Your task to perform on an android device: Open Chrome and go to settings Image 0: 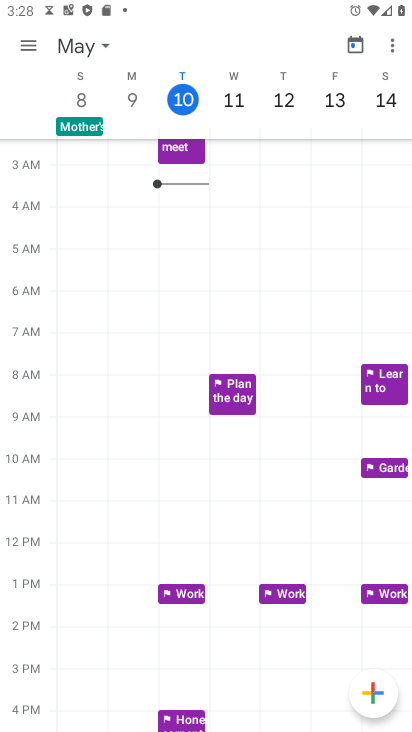
Step 0: press home button
Your task to perform on an android device: Open Chrome and go to settings Image 1: 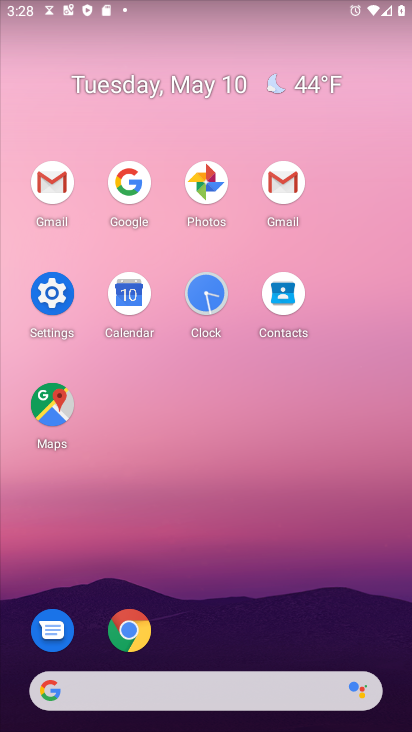
Step 1: click (139, 634)
Your task to perform on an android device: Open Chrome and go to settings Image 2: 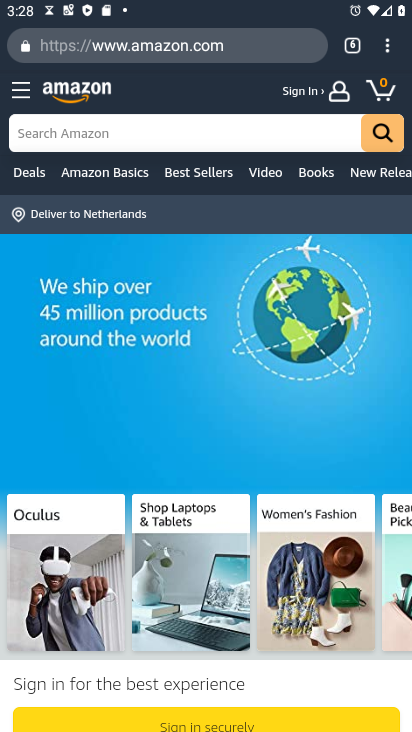
Step 2: click (393, 50)
Your task to perform on an android device: Open Chrome and go to settings Image 3: 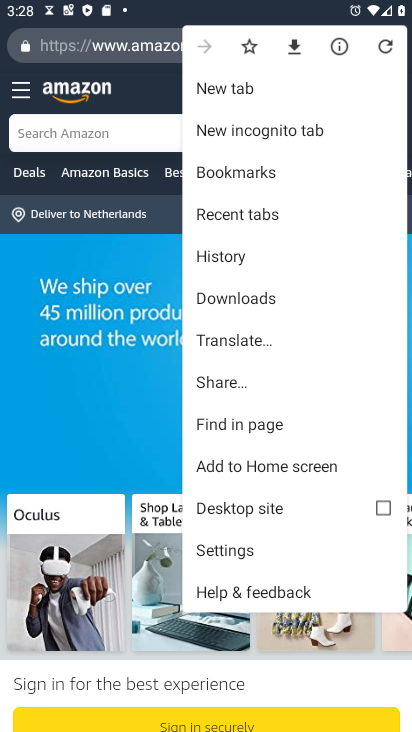
Step 3: click (212, 548)
Your task to perform on an android device: Open Chrome and go to settings Image 4: 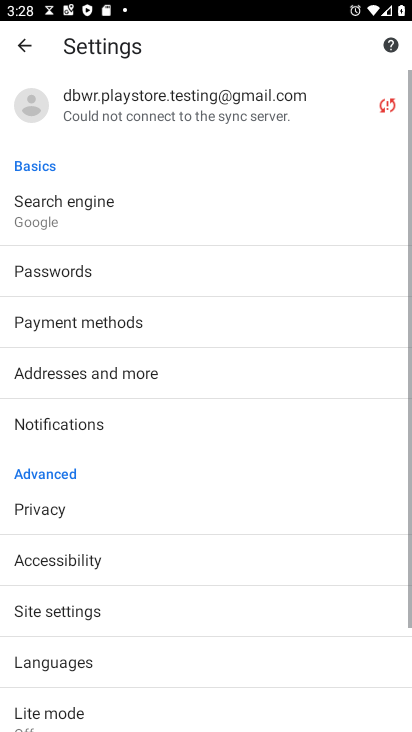
Step 4: task complete